Your task to perform on an android device: Open sound settings Image 0: 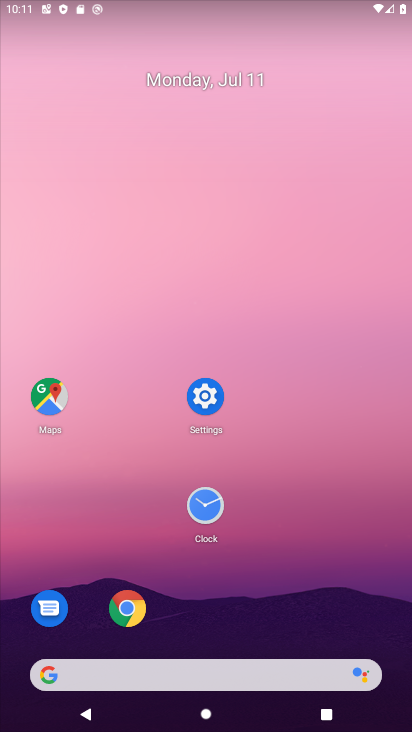
Step 0: click (198, 398)
Your task to perform on an android device: Open sound settings Image 1: 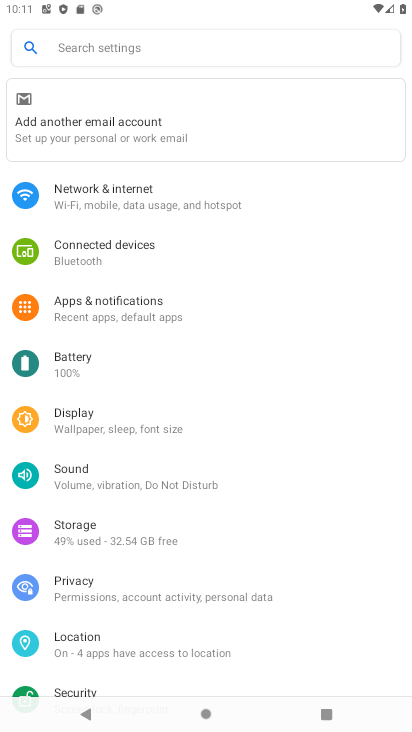
Step 1: click (63, 479)
Your task to perform on an android device: Open sound settings Image 2: 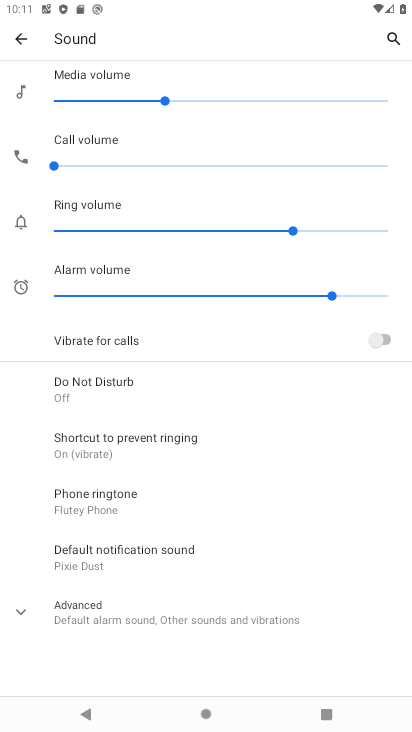
Step 2: click (28, 615)
Your task to perform on an android device: Open sound settings Image 3: 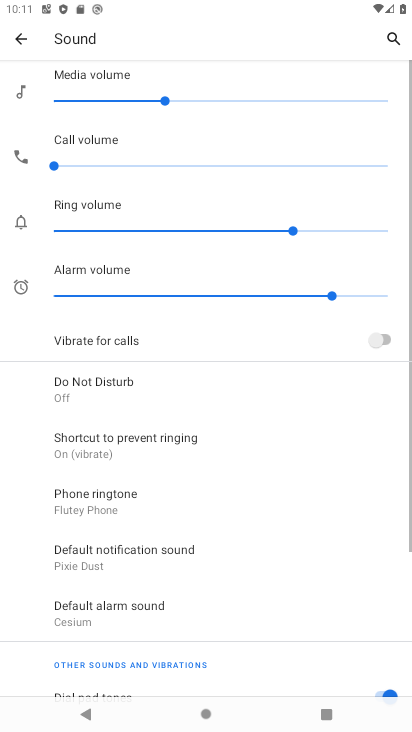
Step 3: task complete